Your task to perform on an android device: Toggle the flashlight Image 0: 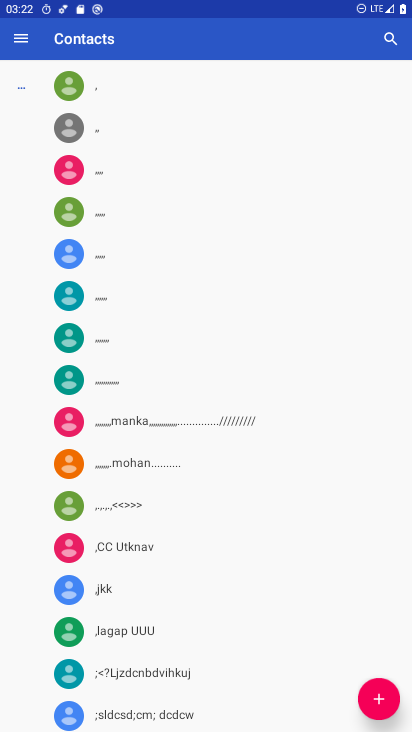
Step 0: drag from (195, 27) to (230, 721)
Your task to perform on an android device: Toggle the flashlight Image 1: 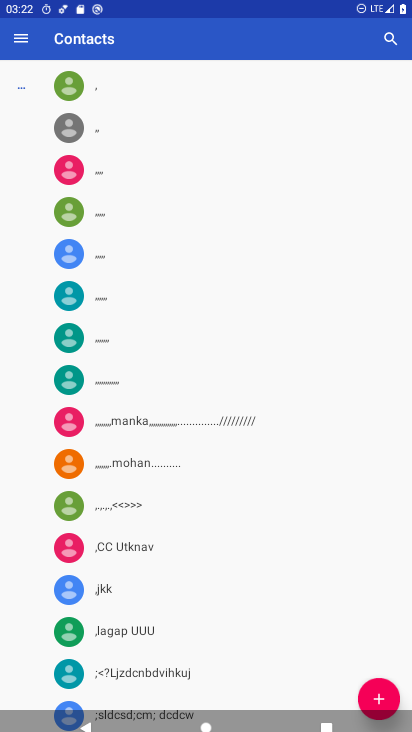
Step 1: task complete